Your task to perform on an android device: toggle location history Image 0: 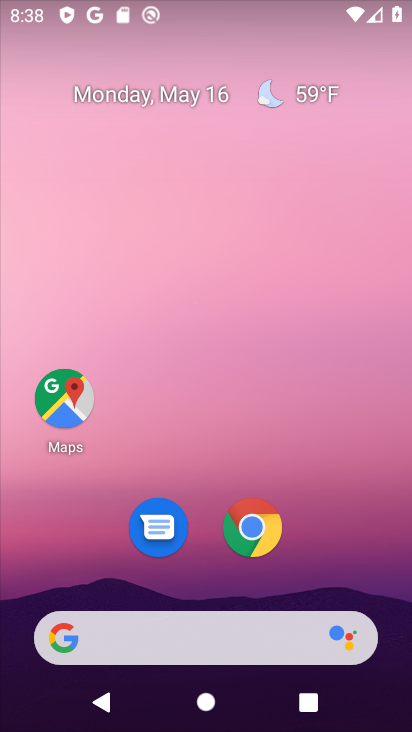
Step 0: drag from (322, 572) to (303, 198)
Your task to perform on an android device: toggle location history Image 1: 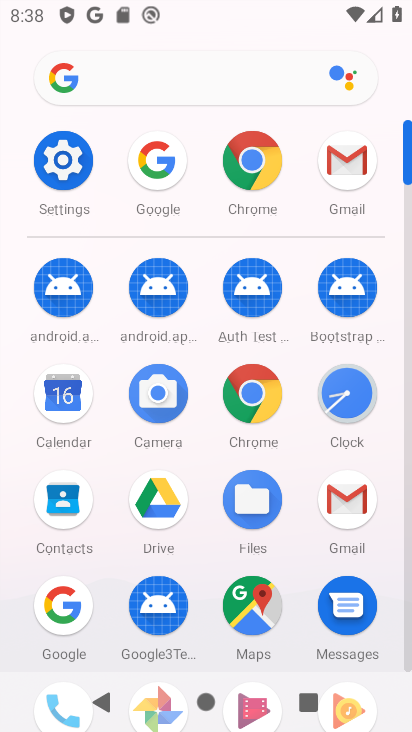
Step 1: click (56, 152)
Your task to perform on an android device: toggle location history Image 2: 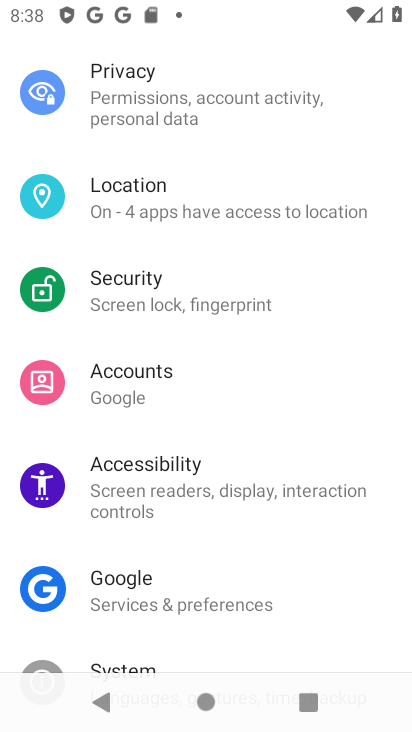
Step 2: click (177, 217)
Your task to perform on an android device: toggle location history Image 3: 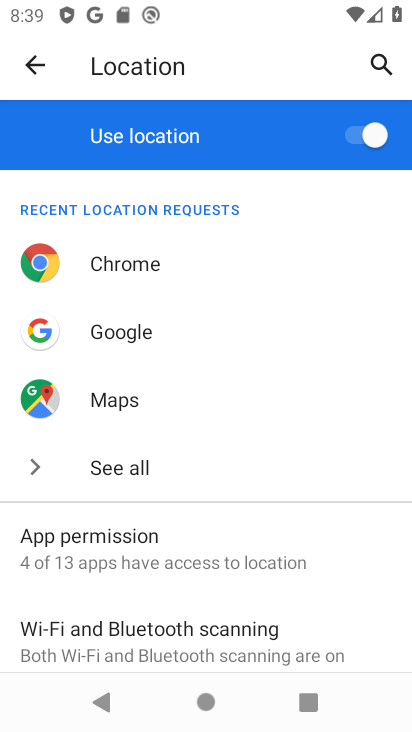
Step 3: drag from (130, 564) to (137, 324)
Your task to perform on an android device: toggle location history Image 4: 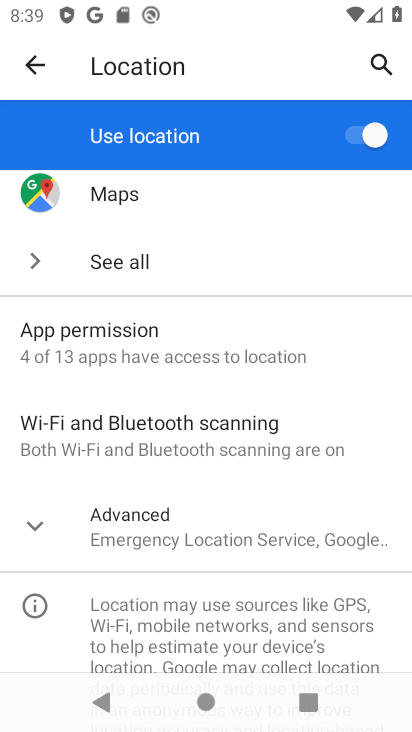
Step 4: click (204, 529)
Your task to perform on an android device: toggle location history Image 5: 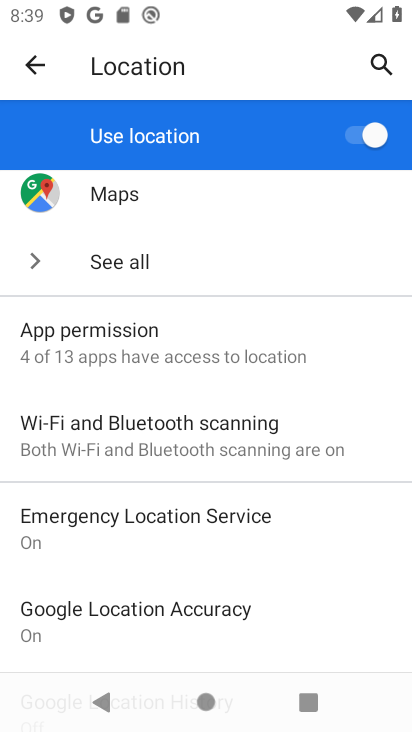
Step 5: drag from (132, 573) to (154, 405)
Your task to perform on an android device: toggle location history Image 6: 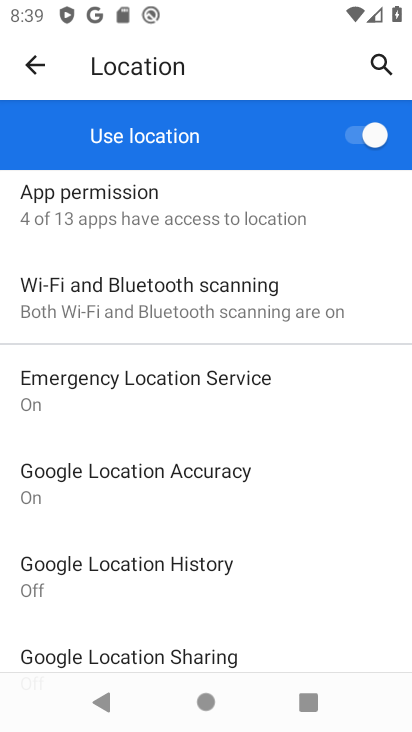
Step 6: click (167, 581)
Your task to perform on an android device: toggle location history Image 7: 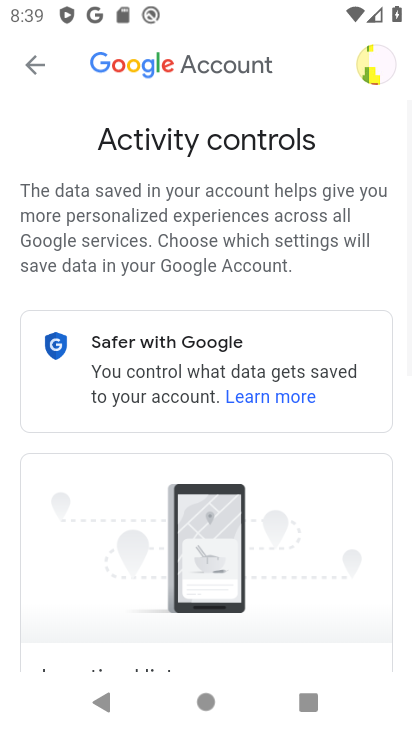
Step 7: drag from (246, 586) to (348, 13)
Your task to perform on an android device: toggle location history Image 8: 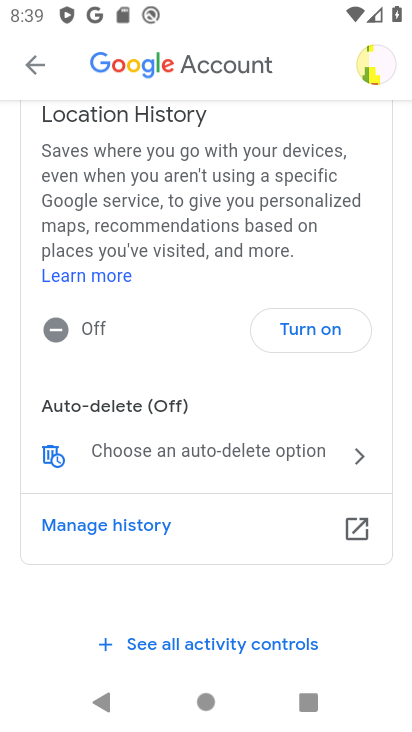
Step 8: click (316, 333)
Your task to perform on an android device: toggle location history Image 9: 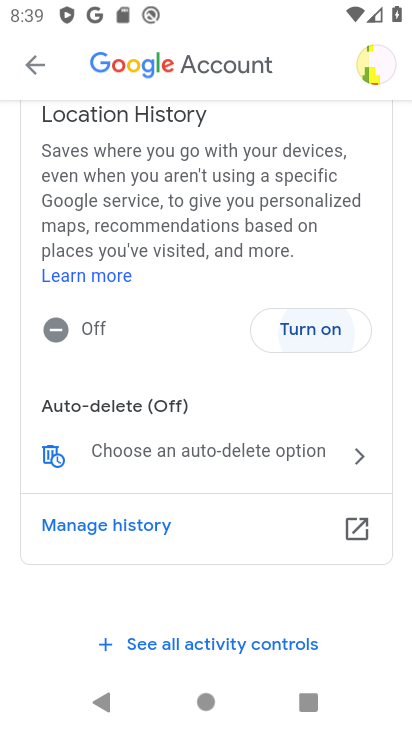
Step 9: click (316, 333)
Your task to perform on an android device: toggle location history Image 10: 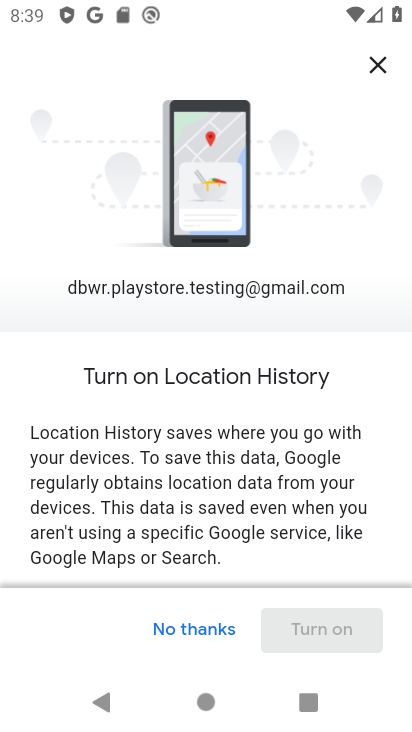
Step 10: click (221, 623)
Your task to perform on an android device: toggle location history Image 11: 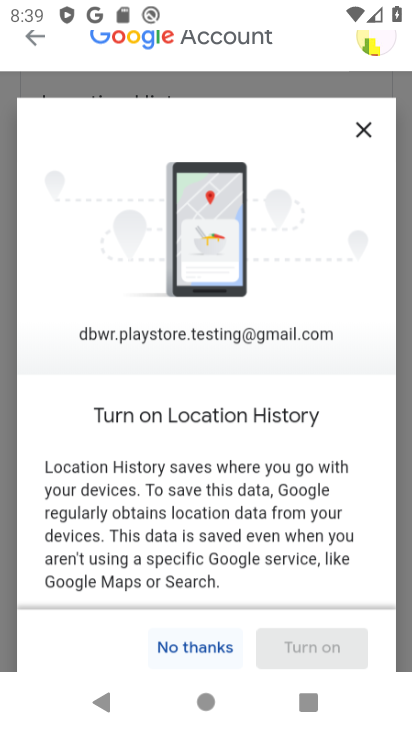
Step 11: click (293, 629)
Your task to perform on an android device: toggle location history Image 12: 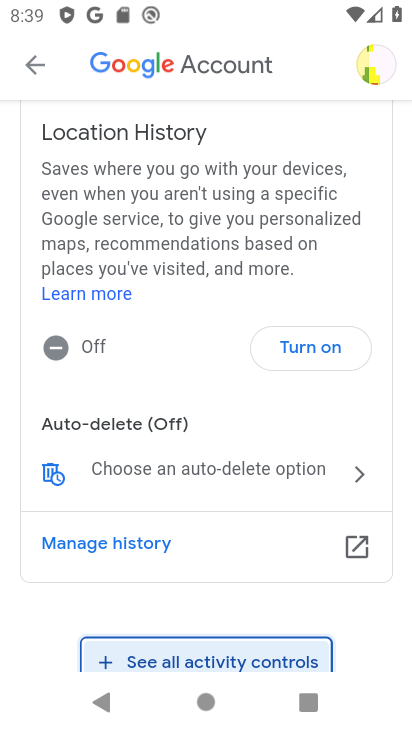
Step 12: task complete